Your task to perform on an android device: Open notification settings Image 0: 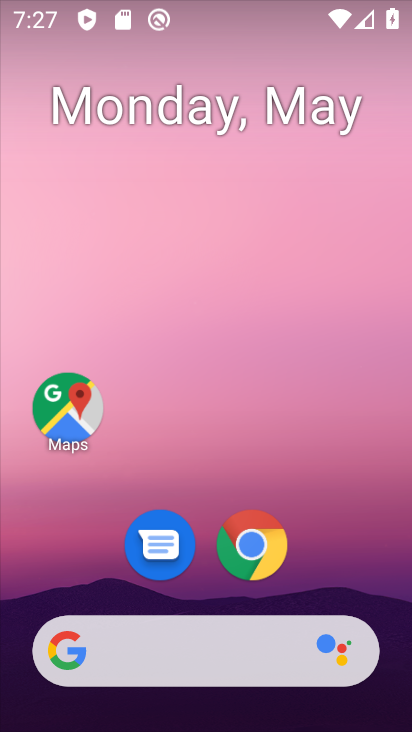
Step 0: drag from (328, 542) to (240, 59)
Your task to perform on an android device: Open notification settings Image 1: 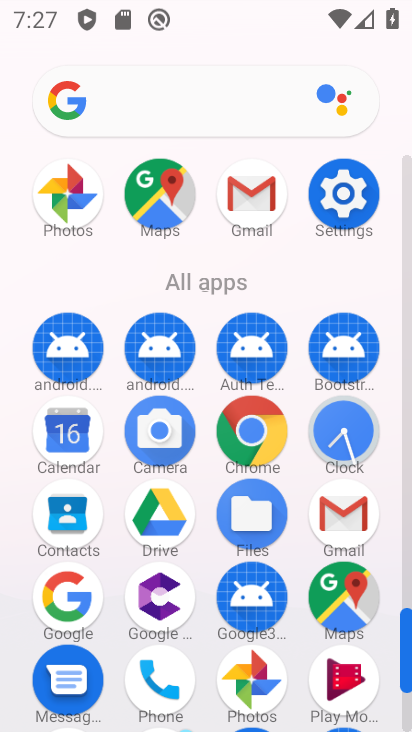
Step 1: click (360, 202)
Your task to perform on an android device: Open notification settings Image 2: 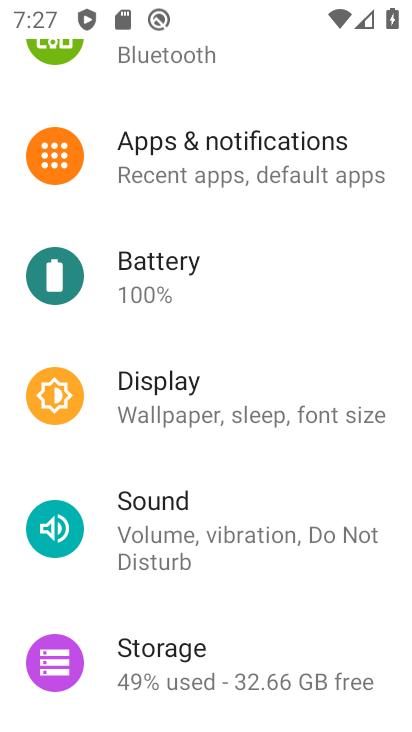
Step 2: drag from (213, 611) to (161, 0)
Your task to perform on an android device: Open notification settings Image 3: 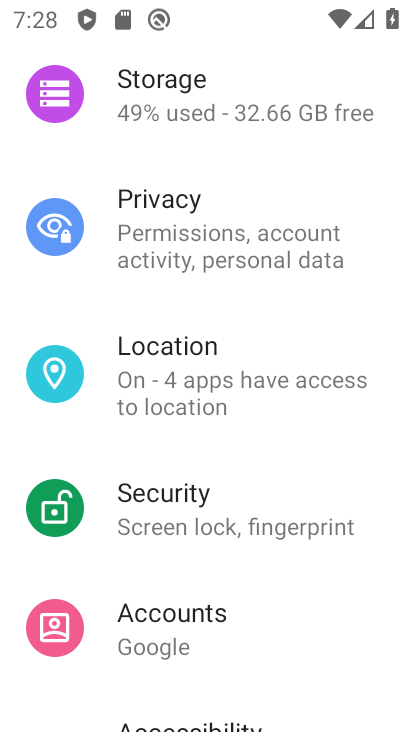
Step 3: drag from (222, 181) to (201, 631)
Your task to perform on an android device: Open notification settings Image 4: 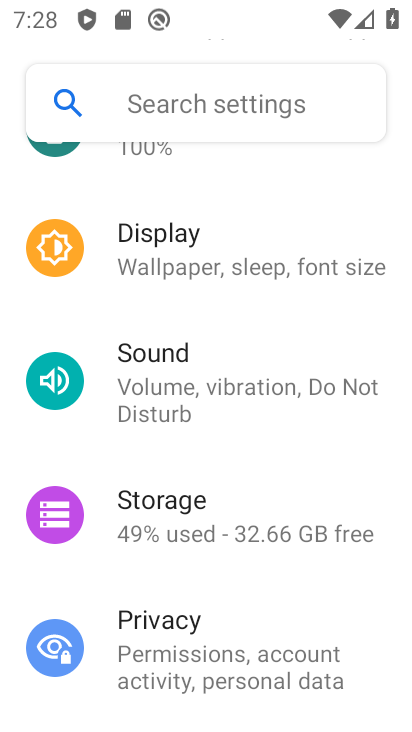
Step 4: drag from (129, 315) to (150, 657)
Your task to perform on an android device: Open notification settings Image 5: 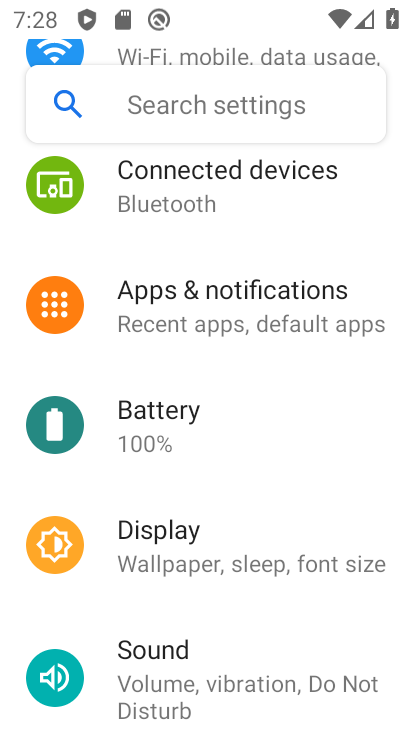
Step 5: drag from (207, 183) to (227, 432)
Your task to perform on an android device: Open notification settings Image 6: 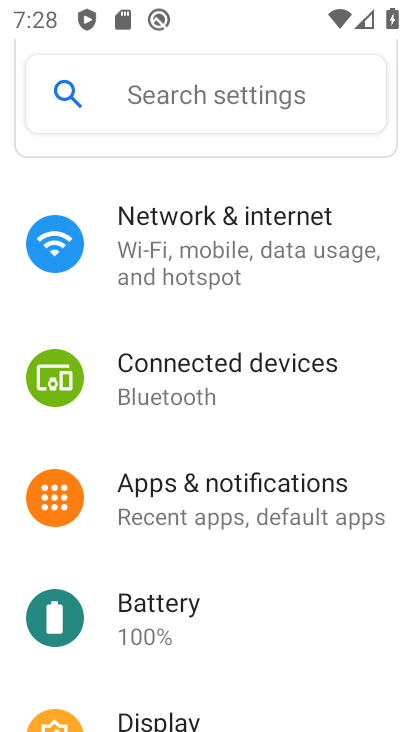
Step 6: click (235, 502)
Your task to perform on an android device: Open notification settings Image 7: 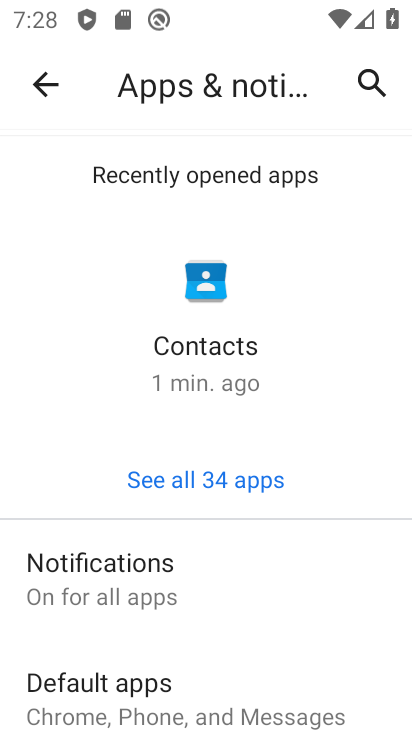
Step 7: click (260, 572)
Your task to perform on an android device: Open notification settings Image 8: 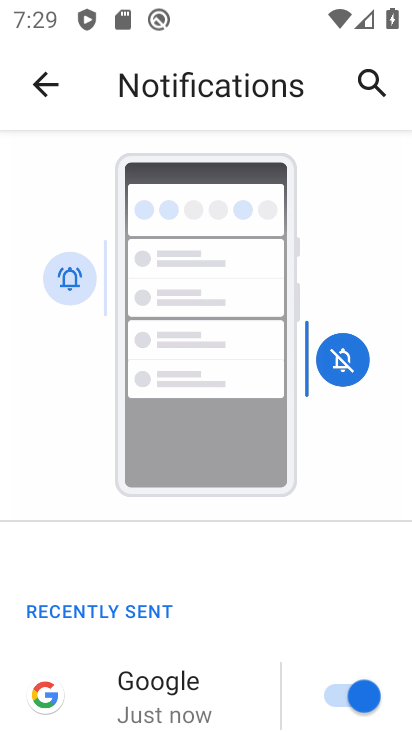
Step 8: task complete